Your task to perform on an android device: toggle notifications settings in the gmail app Image 0: 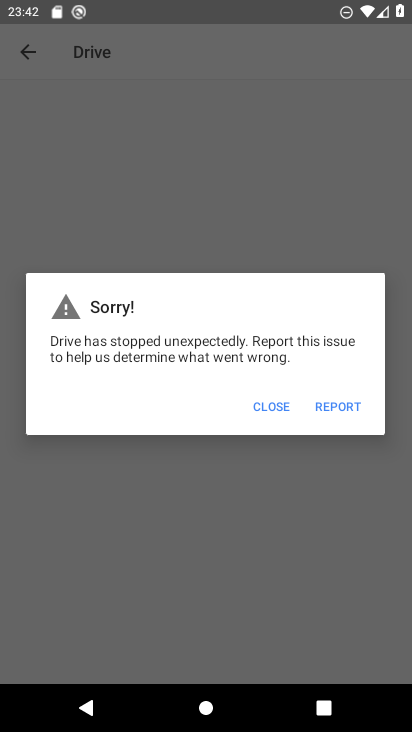
Step 0: press home button
Your task to perform on an android device: toggle notifications settings in the gmail app Image 1: 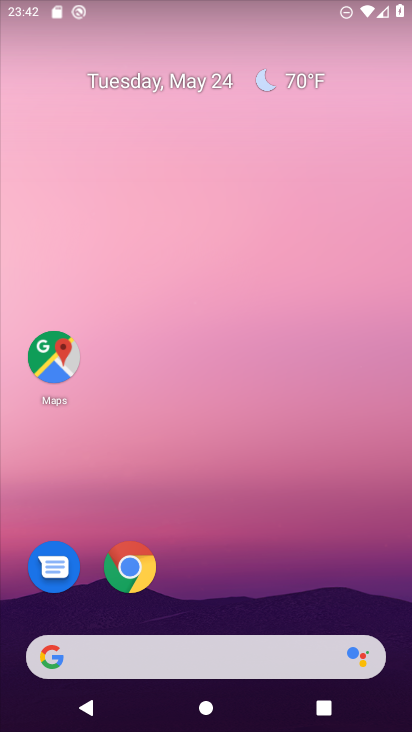
Step 1: drag from (281, 383) to (158, 10)
Your task to perform on an android device: toggle notifications settings in the gmail app Image 2: 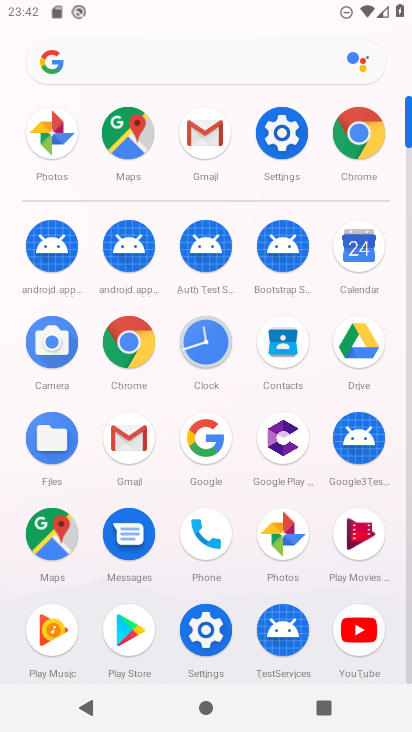
Step 2: click (203, 126)
Your task to perform on an android device: toggle notifications settings in the gmail app Image 3: 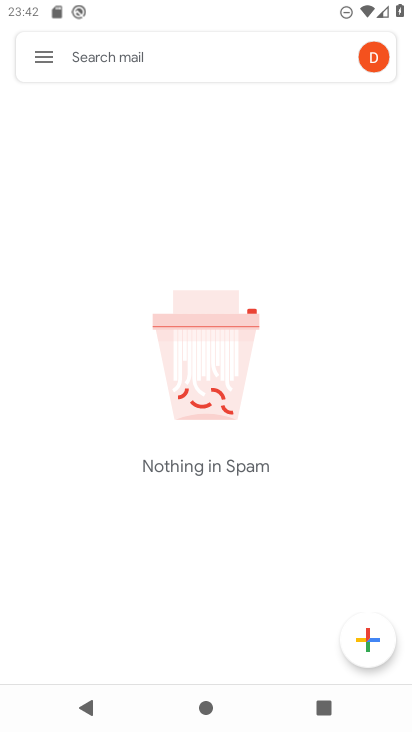
Step 3: click (49, 46)
Your task to perform on an android device: toggle notifications settings in the gmail app Image 4: 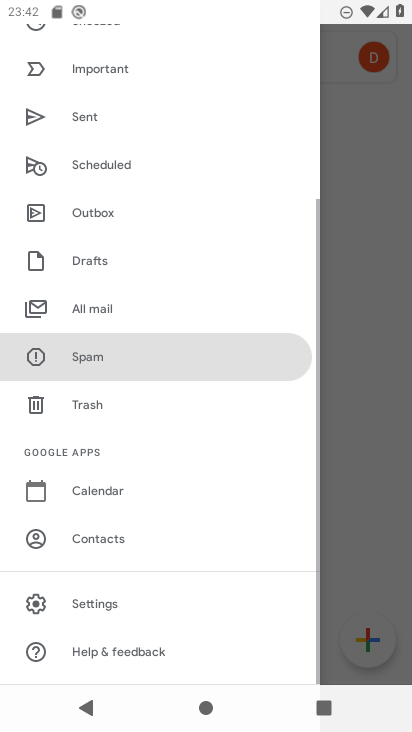
Step 4: click (226, 605)
Your task to perform on an android device: toggle notifications settings in the gmail app Image 5: 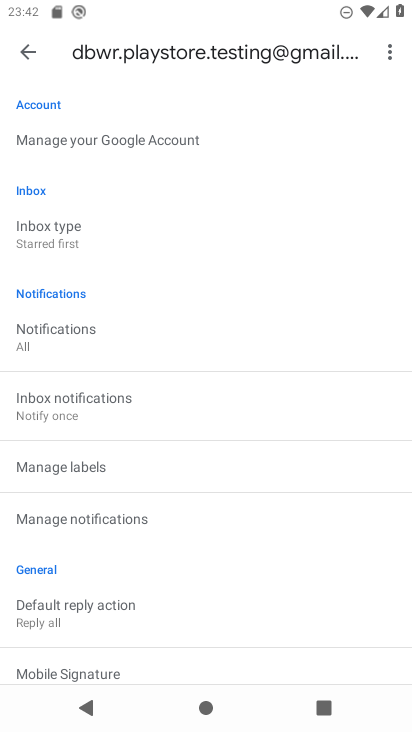
Step 5: click (124, 409)
Your task to perform on an android device: toggle notifications settings in the gmail app Image 6: 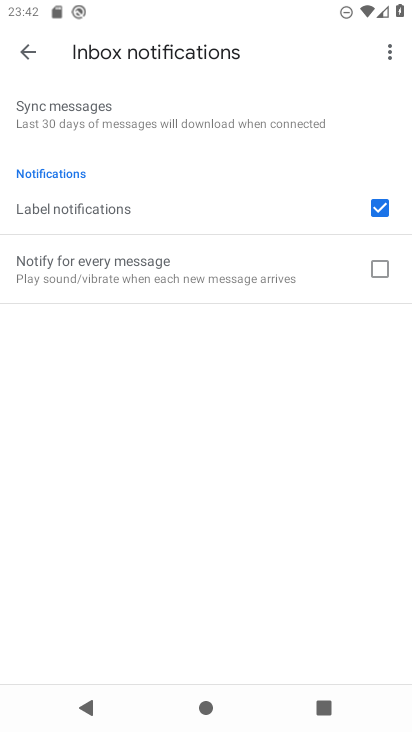
Step 6: click (25, 46)
Your task to perform on an android device: toggle notifications settings in the gmail app Image 7: 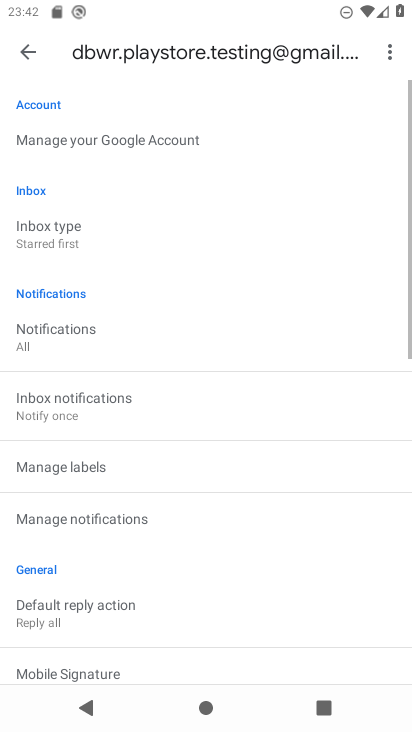
Step 7: click (90, 339)
Your task to perform on an android device: toggle notifications settings in the gmail app Image 8: 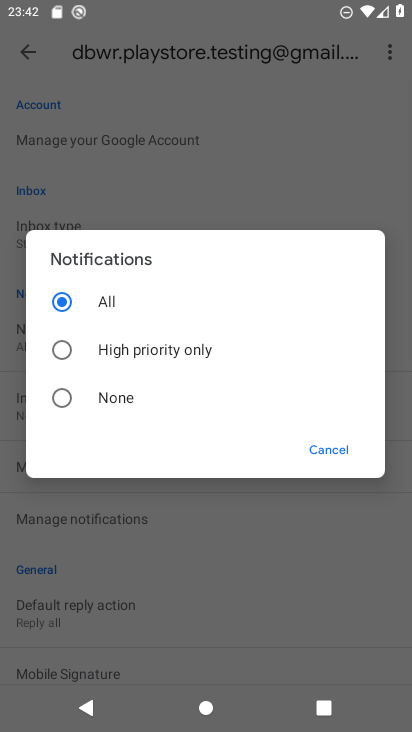
Step 8: click (125, 397)
Your task to perform on an android device: toggle notifications settings in the gmail app Image 9: 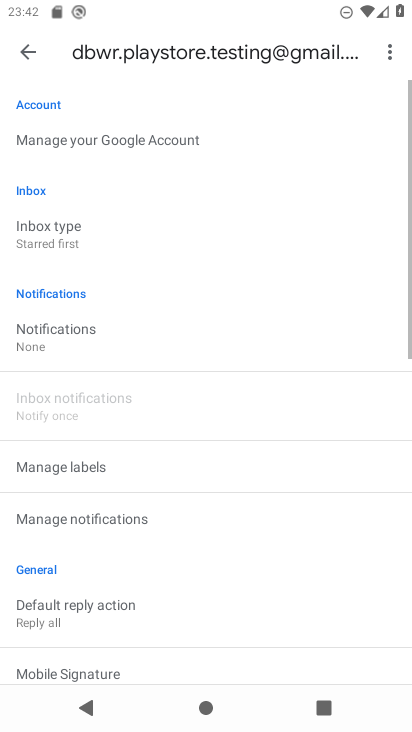
Step 9: task complete